Your task to perform on an android device: turn off location Image 0: 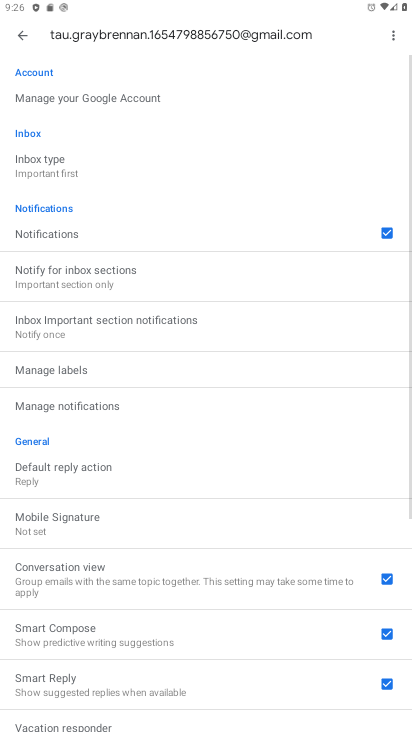
Step 0: press home button
Your task to perform on an android device: turn off location Image 1: 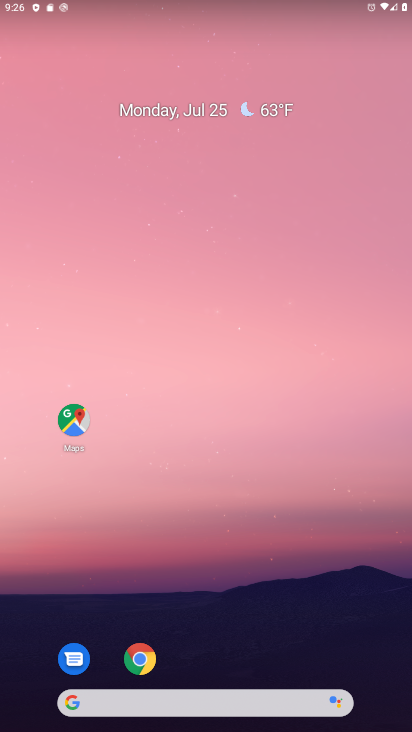
Step 1: drag from (224, 677) to (236, 133)
Your task to perform on an android device: turn off location Image 2: 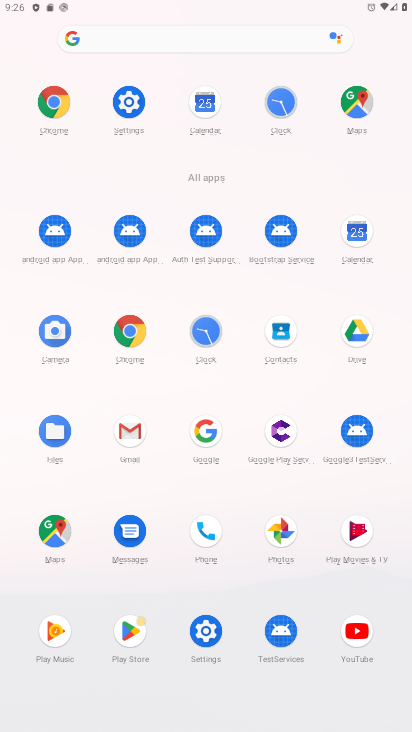
Step 2: click (128, 104)
Your task to perform on an android device: turn off location Image 3: 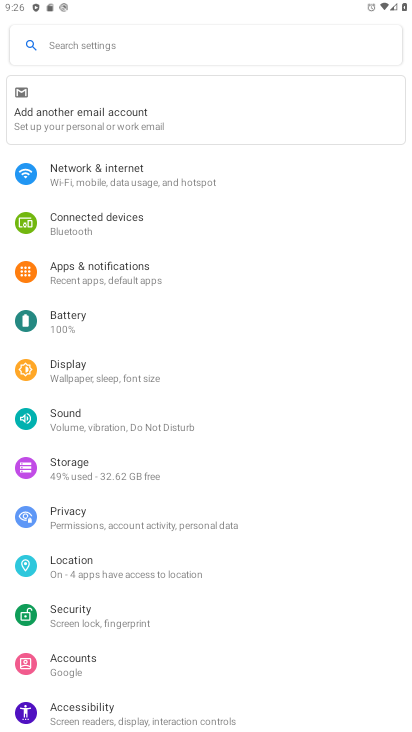
Step 3: click (75, 574)
Your task to perform on an android device: turn off location Image 4: 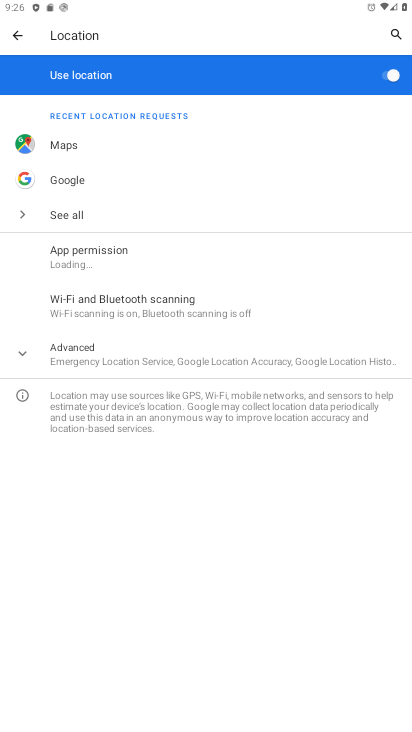
Step 4: click (395, 77)
Your task to perform on an android device: turn off location Image 5: 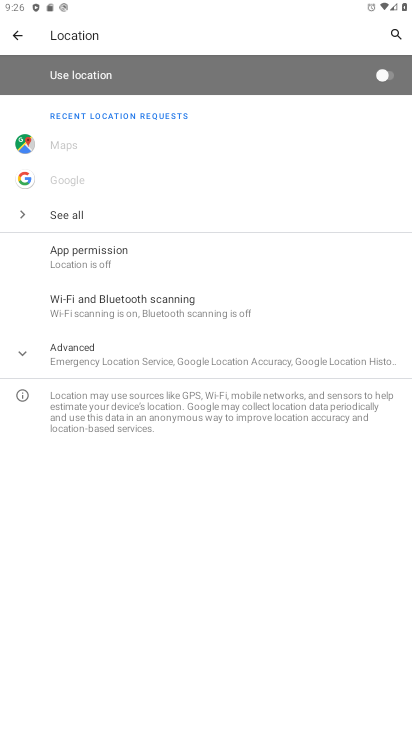
Step 5: task complete